Your task to perform on an android device: open wifi settings Image 0: 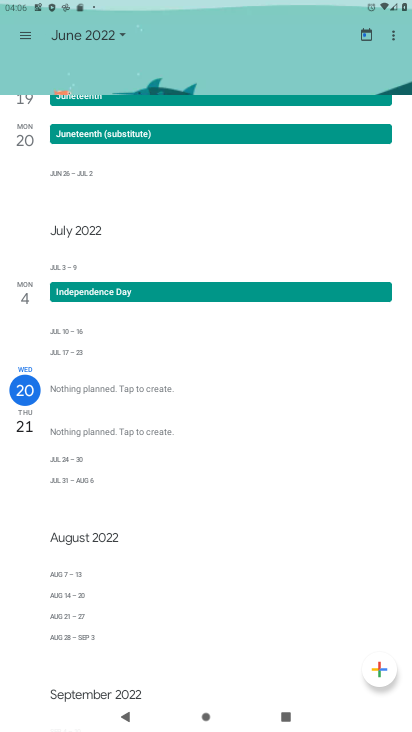
Step 0: press home button
Your task to perform on an android device: open wifi settings Image 1: 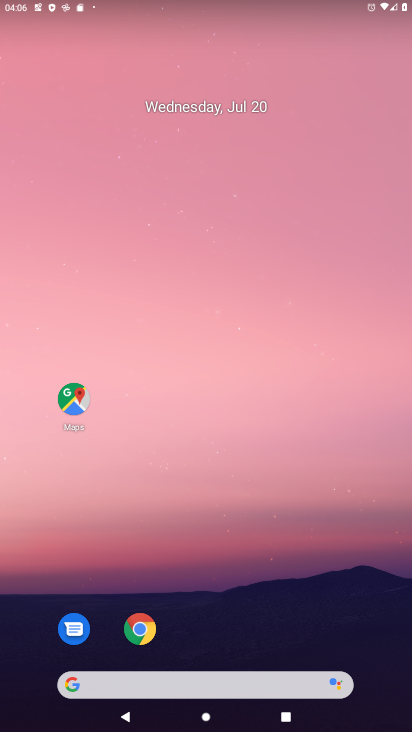
Step 1: drag from (377, 662) to (354, 92)
Your task to perform on an android device: open wifi settings Image 2: 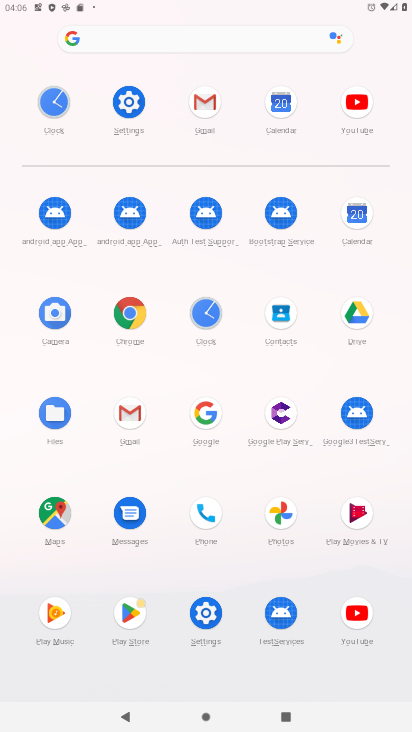
Step 2: click (203, 613)
Your task to perform on an android device: open wifi settings Image 3: 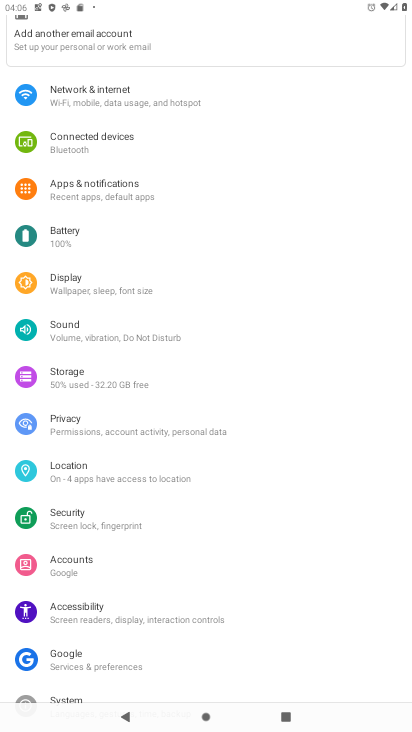
Step 3: click (71, 93)
Your task to perform on an android device: open wifi settings Image 4: 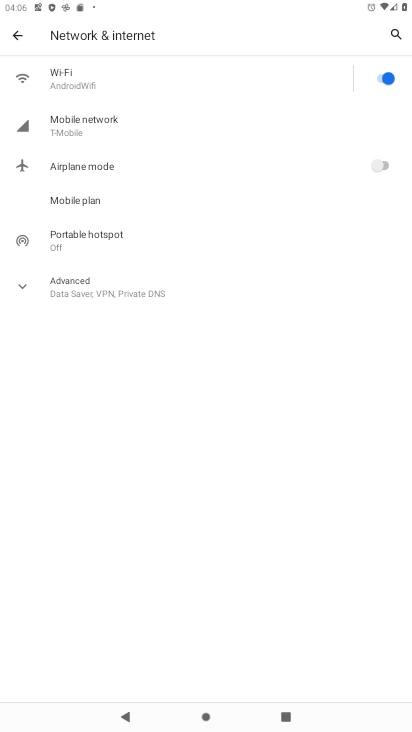
Step 4: click (60, 66)
Your task to perform on an android device: open wifi settings Image 5: 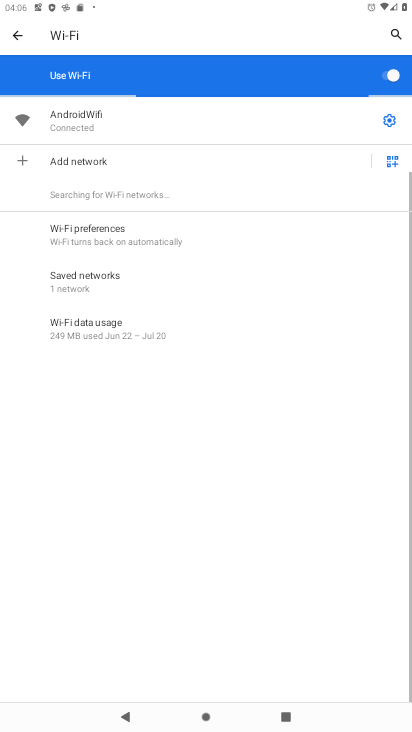
Step 5: click (389, 119)
Your task to perform on an android device: open wifi settings Image 6: 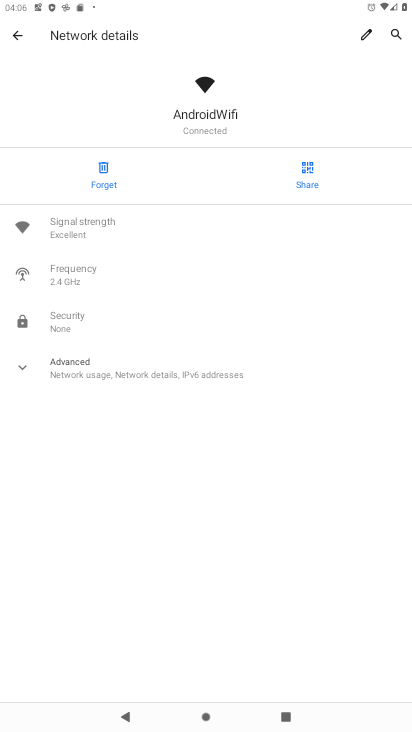
Step 6: task complete